Your task to perform on an android device: install app "Gboard" Image 0: 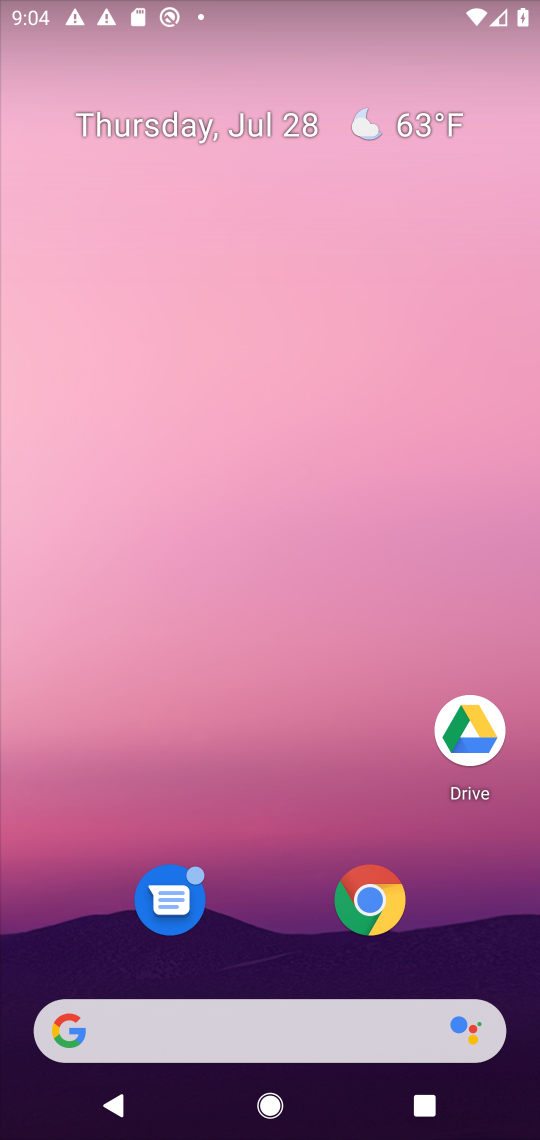
Step 0: drag from (262, 918) to (206, 329)
Your task to perform on an android device: install app "Gboard" Image 1: 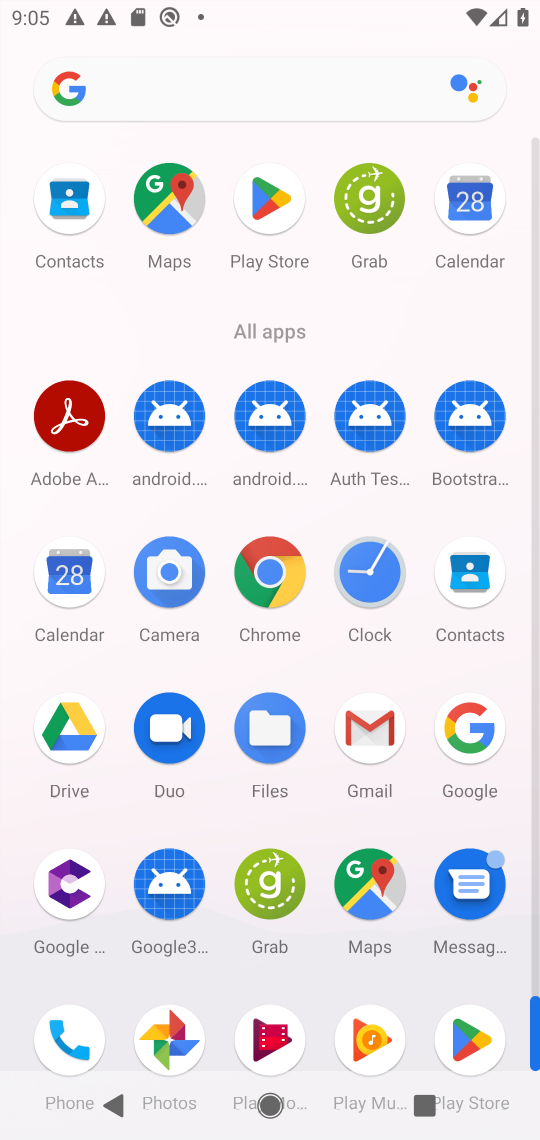
Step 1: click (263, 212)
Your task to perform on an android device: install app "Gboard" Image 2: 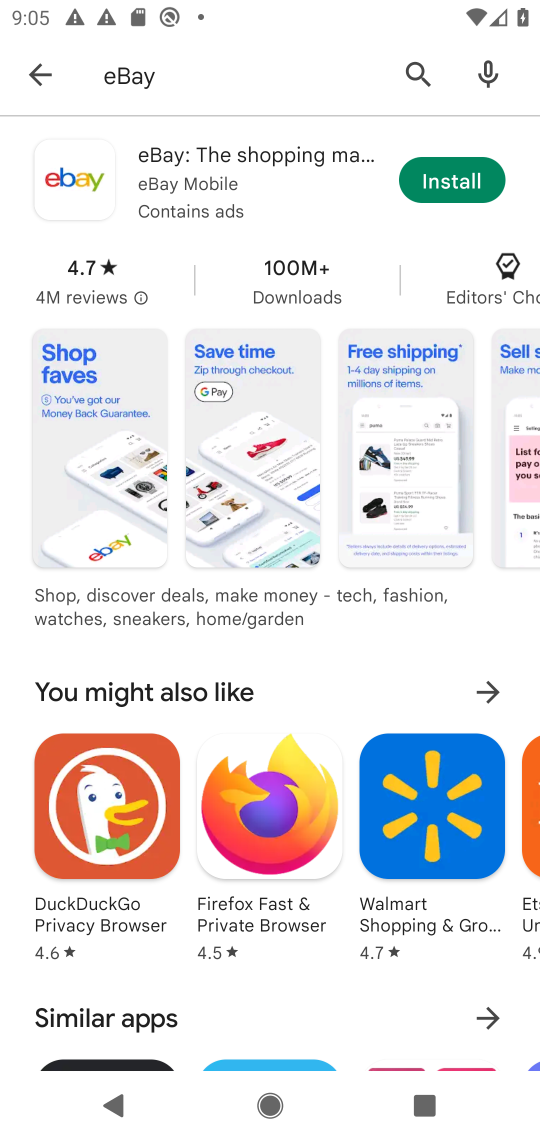
Step 2: click (412, 65)
Your task to perform on an android device: install app "Gboard" Image 3: 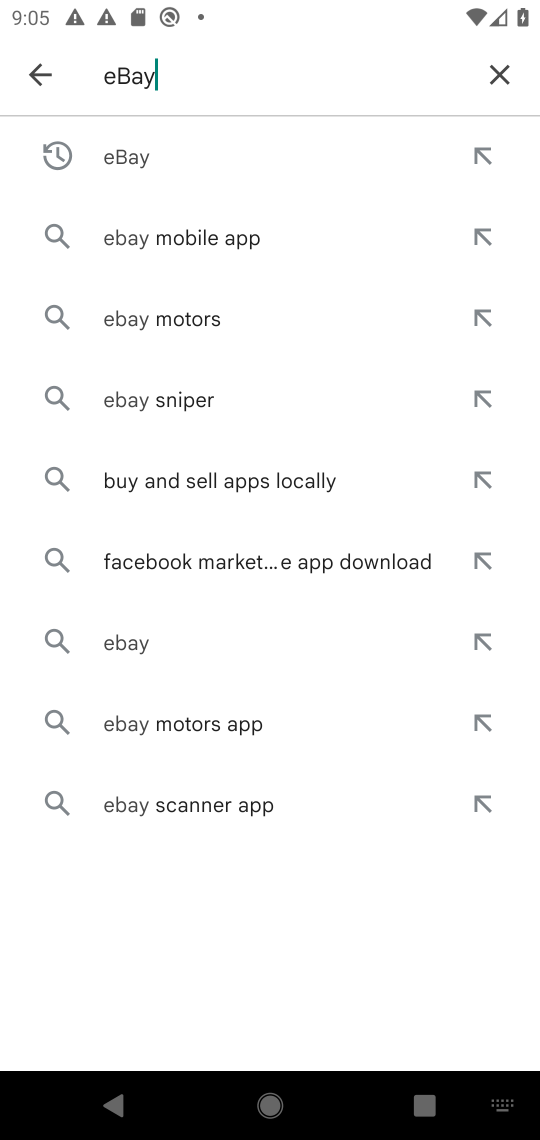
Step 3: click (493, 70)
Your task to perform on an android device: install app "Gboard" Image 4: 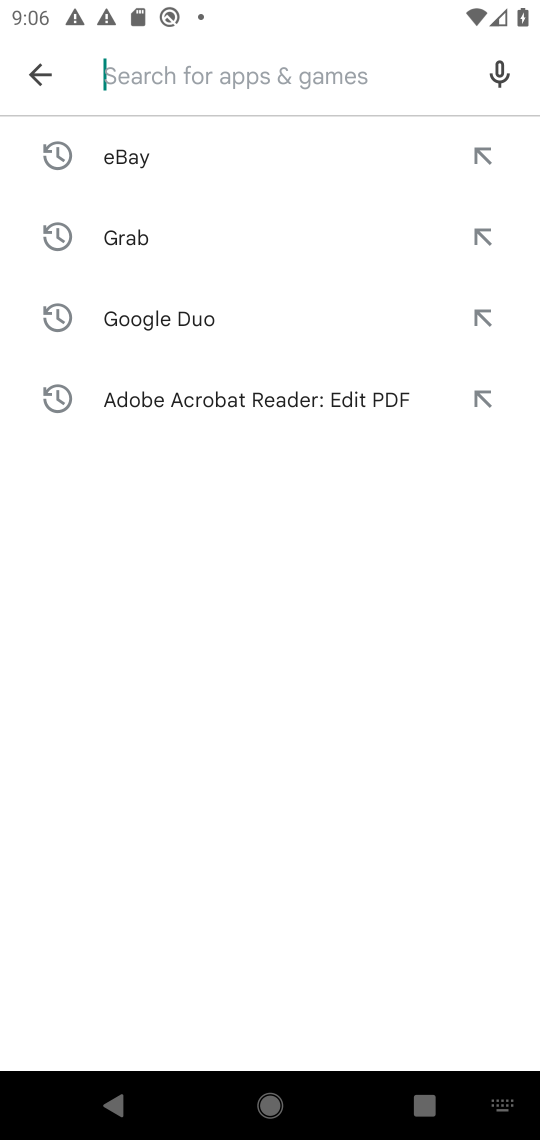
Step 4: type "Gboard"
Your task to perform on an android device: install app "Gboard" Image 5: 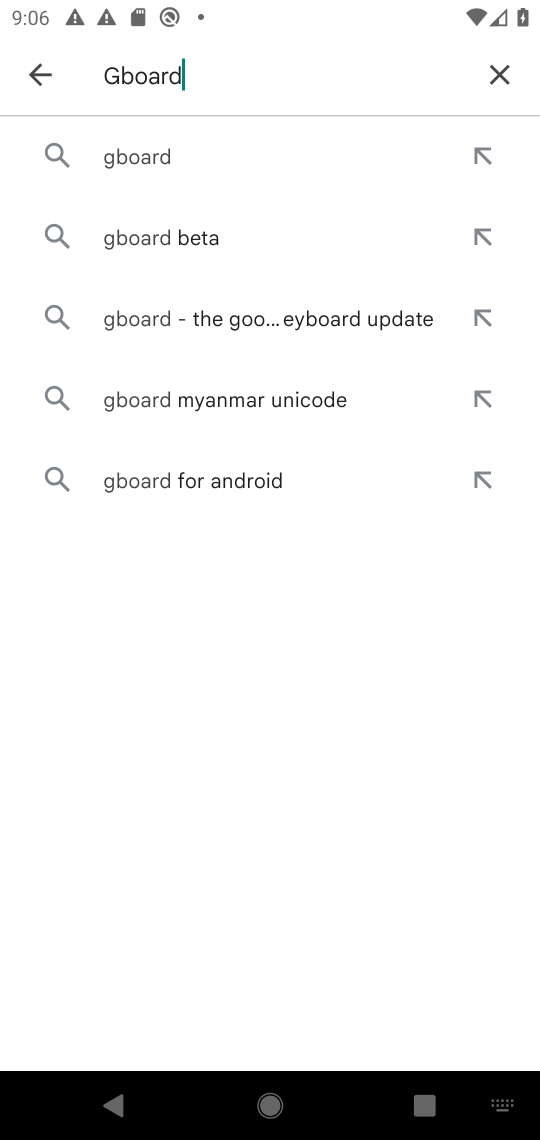
Step 5: press enter
Your task to perform on an android device: install app "Gboard" Image 6: 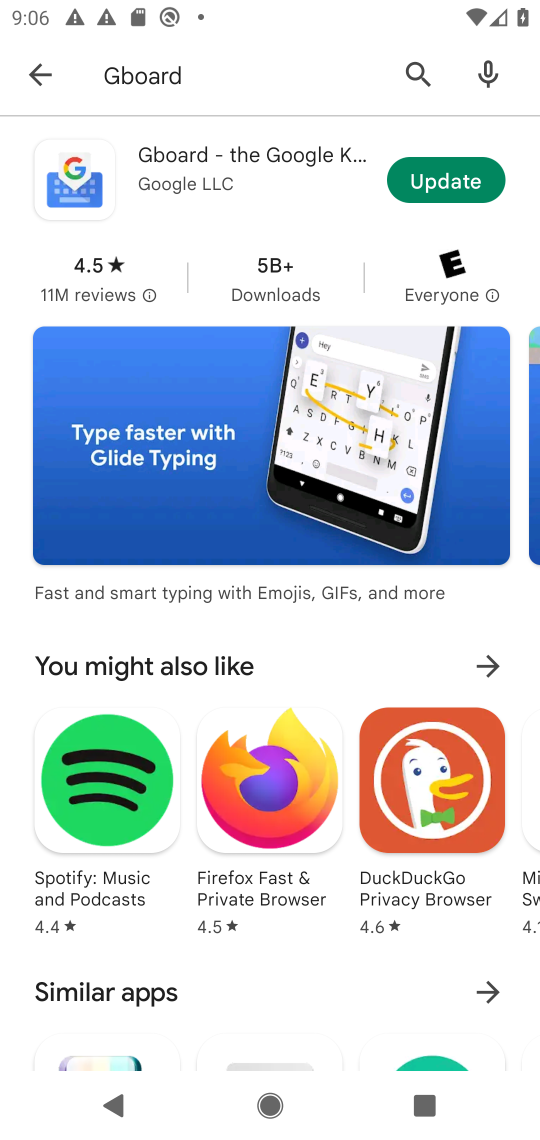
Step 6: task complete